Your task to perform on an android device: toggle data saver in the chrome app Image 0: 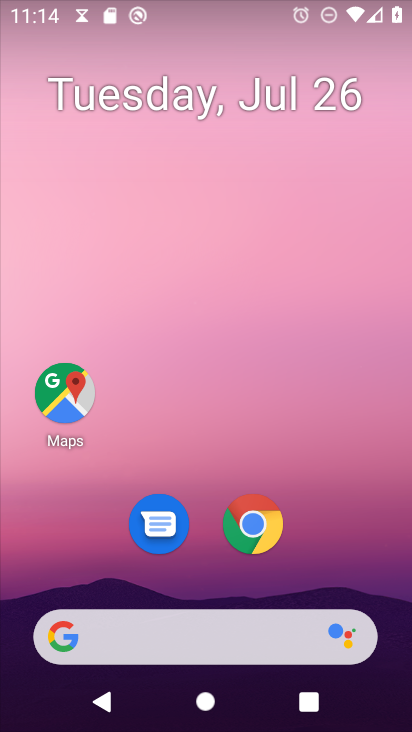
Step 0: click (250, 533)
Your task to perform on an android device: toggle data saver in the chrome app Image 1: 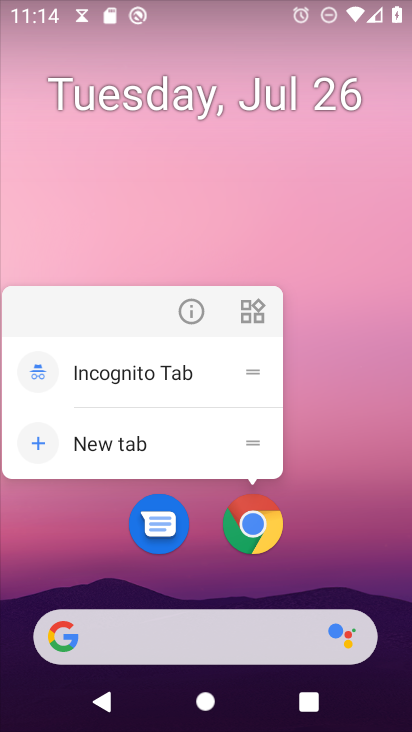
Step 1: click (252, 529)
Your task to perform on an android device: toggle data saver in the chrome app Image 2: 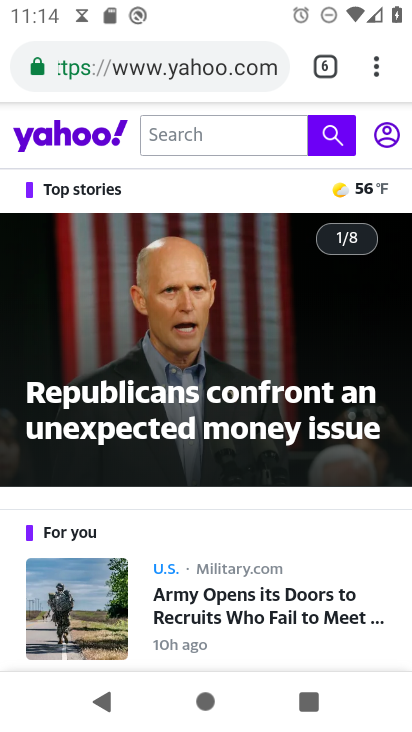
Step 2: drag from (379, 64) to (231, 531)
Your task to perform on an android device: toggle data saver in the chrome app Image 3: 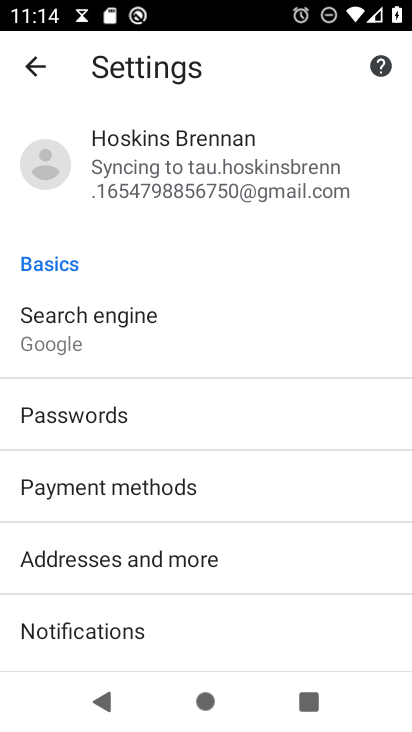
Step 3: drag from (177, 617) to (321, 125)
Your task to perform on an android device: toggle data saver in the chrome app Image 4: 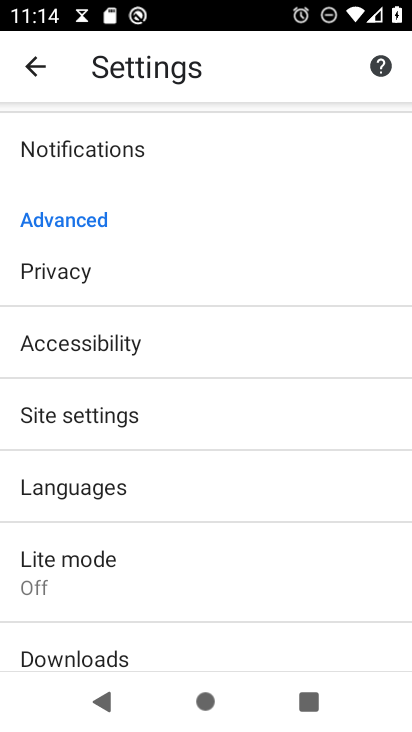
Step 4: click (110, 566)
Your task to perform on an android device: toggle data saver in the chrome app Image 5: 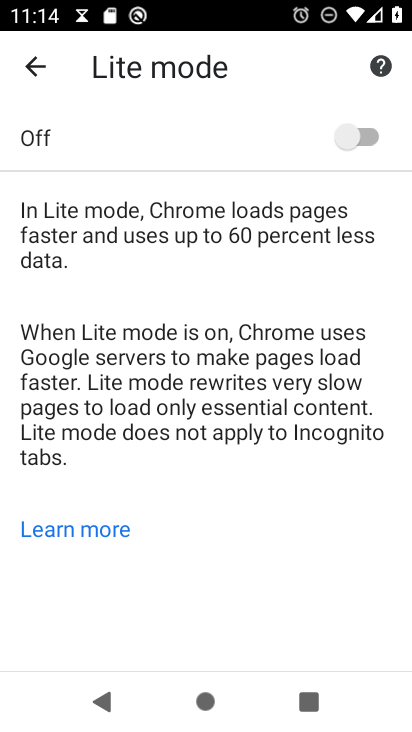
Step 5: click (369, 134)
Your task to perform on an android device: toggle data saver in the chrome app Image 6: 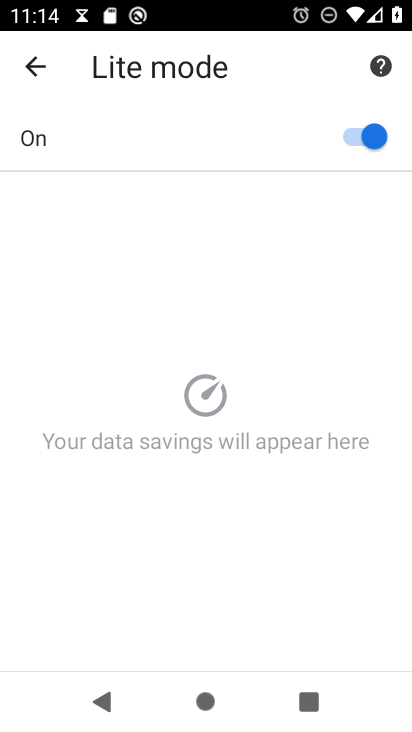
Step 6: task complete